Your task to perform on an android device: Open settings Image 0: 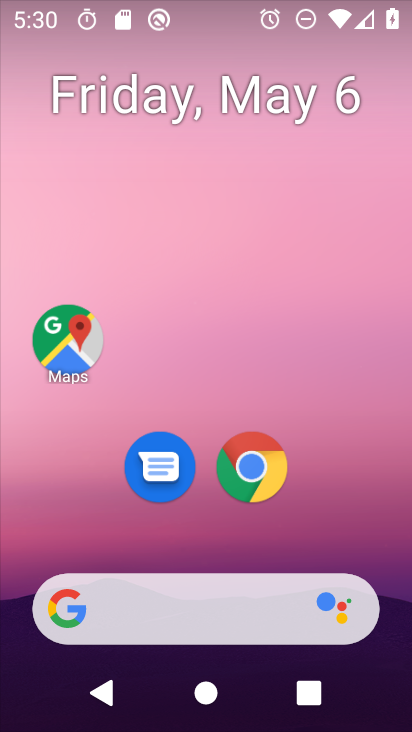
Step 0: click (327, 82)
Your task to perform on an android device: Open settings Image 1: 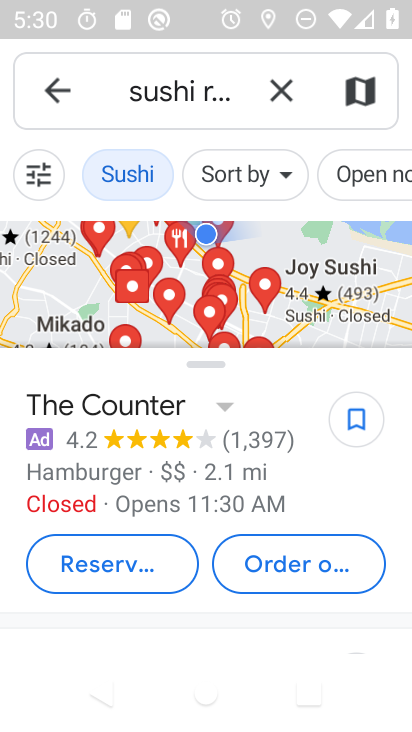
Step 1: press home button
Your task to perform on an android device: Open settings Image 2: 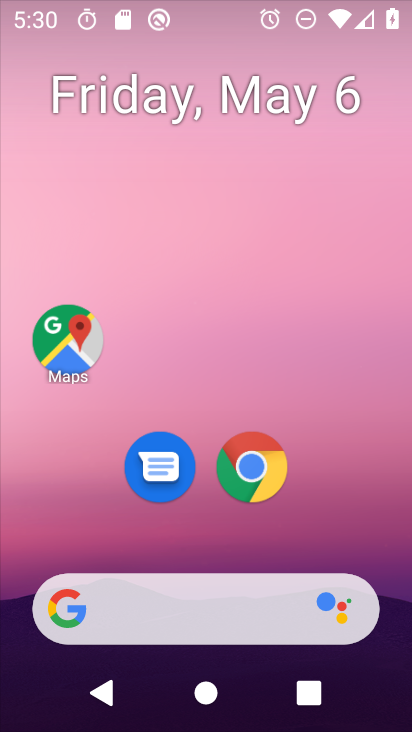
Step 2: drag from (355, 507) to (339, 135)
Your task to perform on an android device: Open settings Image 3: 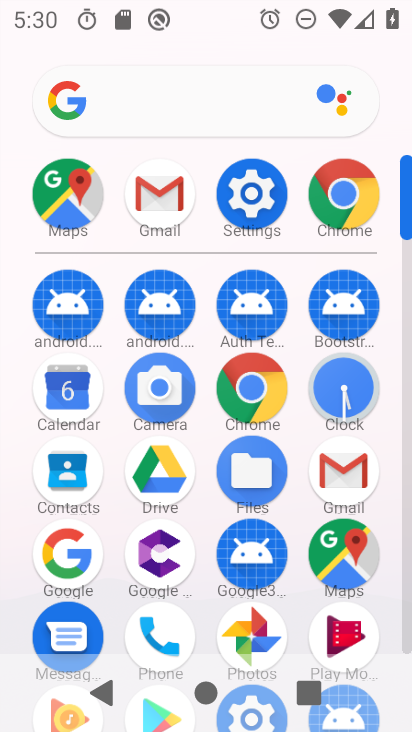
Step 3: click (257, 211)
Your task to perform on an android device: Open settings Image 4: 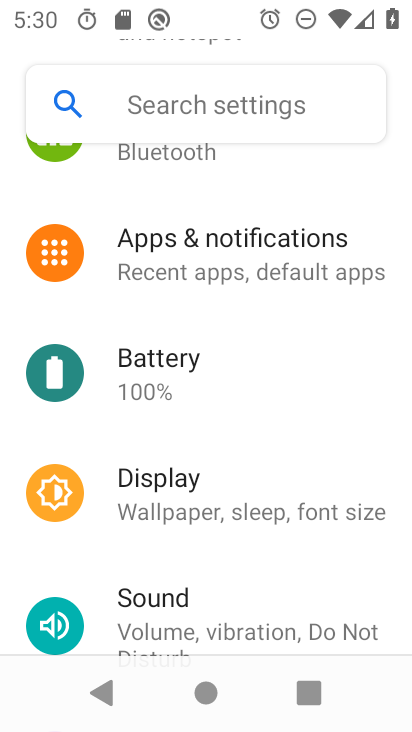
Step 4: task complete